Your task to perform on an android device: Go to Yahoo.com Image 0: 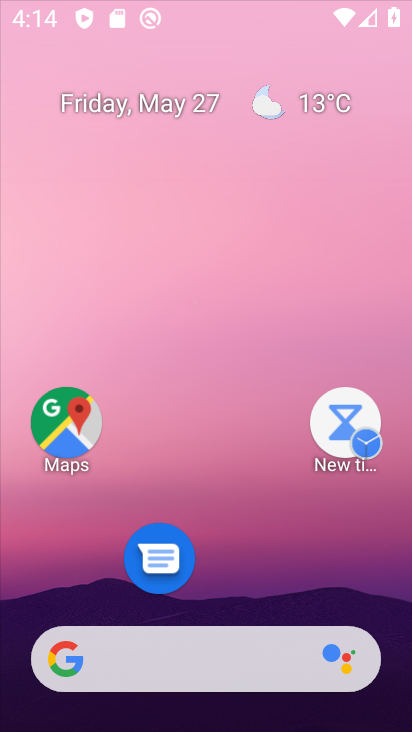
Step 0: click (165, 194)
Your task to perform on an android device: Go to Yahoo.com Image 1: 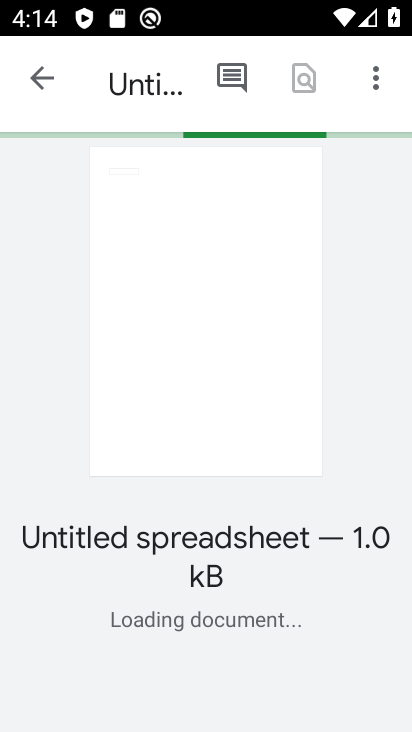
Step 1: press back button
Your task to perform on an android device: Go to Yahoo.com Image 2: 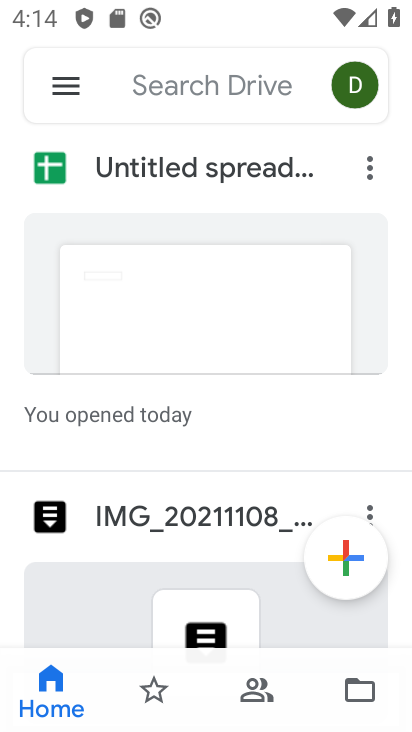
Step 2: drag from (406, 305) to (403, 247)
Your task to perform on an android device: Go to Yahoo.com Image 3: 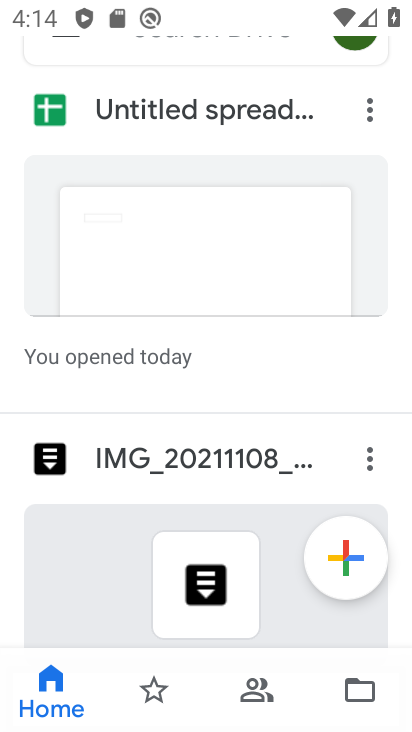
Step 3: press home button
Your task to perform on an android device: Go to Yahoo.com Image 4: 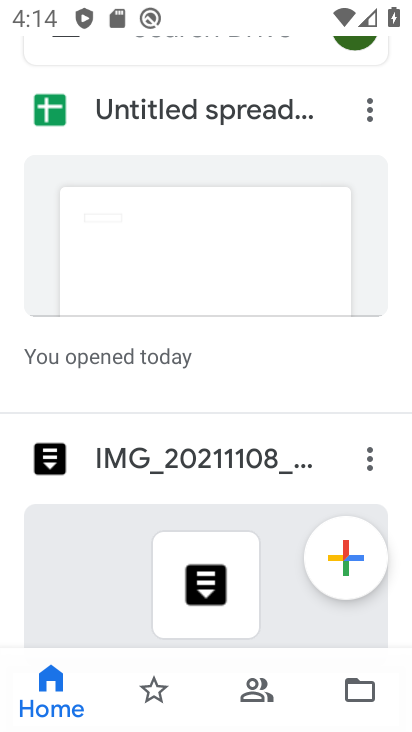
Step 4: press home button
Your task to perform on an android device: Go to Yahoo.com Image 5: 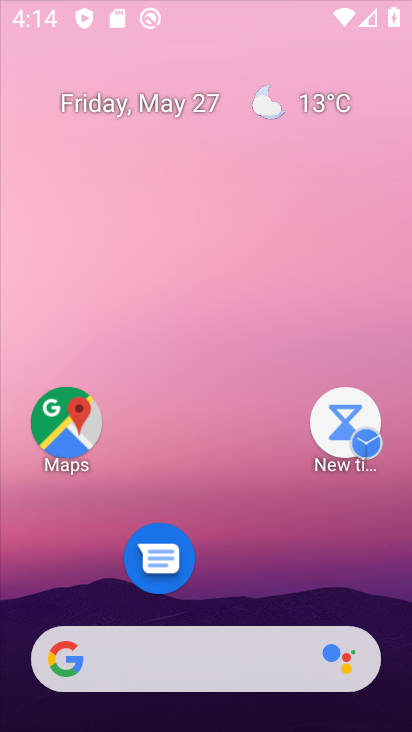
Step 5: press home button
Your task to perform on an android device: Go to Yahoo.com Image 6: 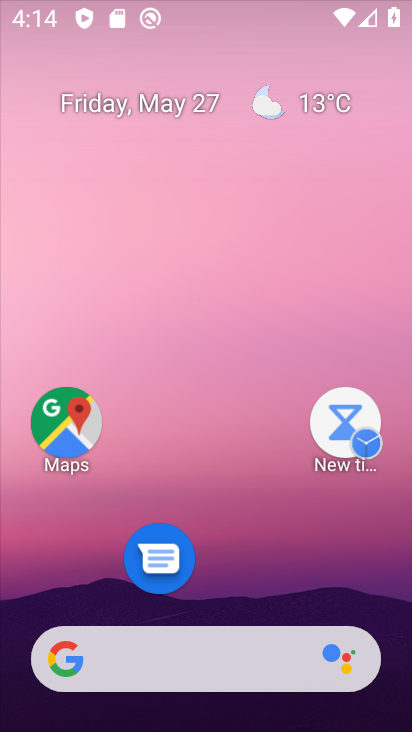
Step 6: press home button
Your task to perform on an android device: Go to Yahoo.com Image 7: 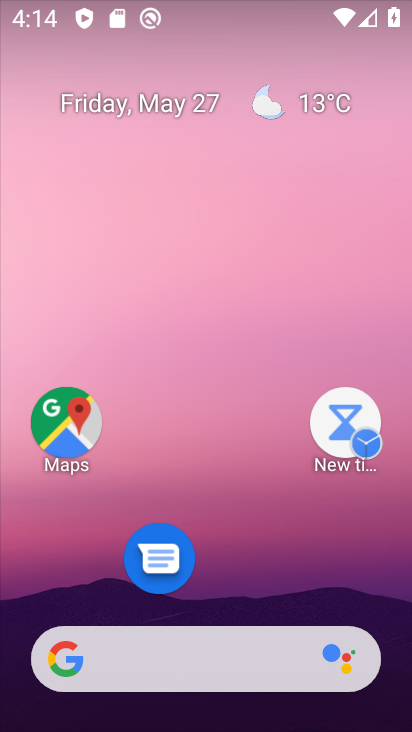
Step 7: drag from (273, 611) to (206, 163)
Your task to perform on an android device: Go to Yahoo.com Image 8: 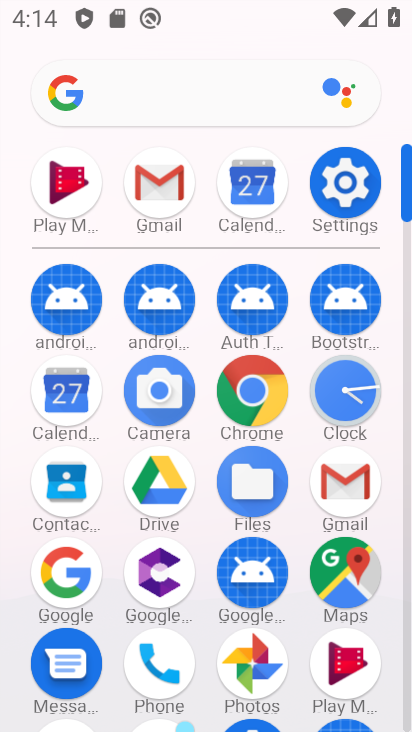
Step 8: click (250, 381)
Your task to perform on an android device: Go to Yahoo.com Image 9: 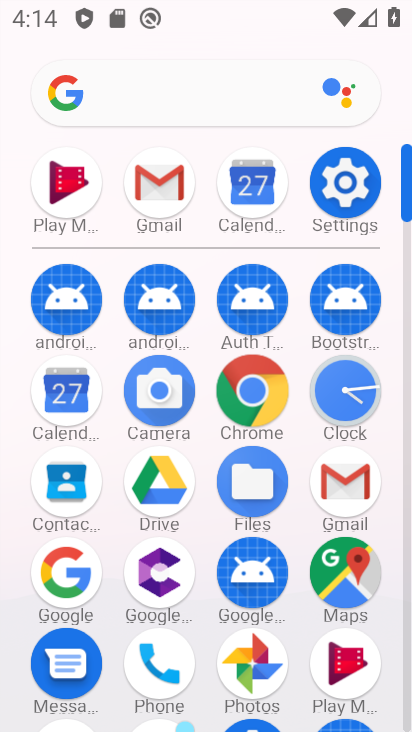
Step 9: click (252, 381)
Your task to perform on an android device: Go to Yahoo.com Image 10: 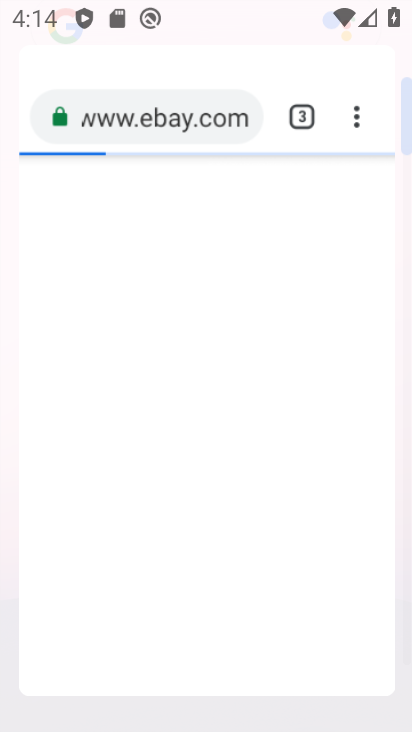
Step 10: click (259, 378)
Your task to perform on an android device: Go to Yahoo.com Image 11: 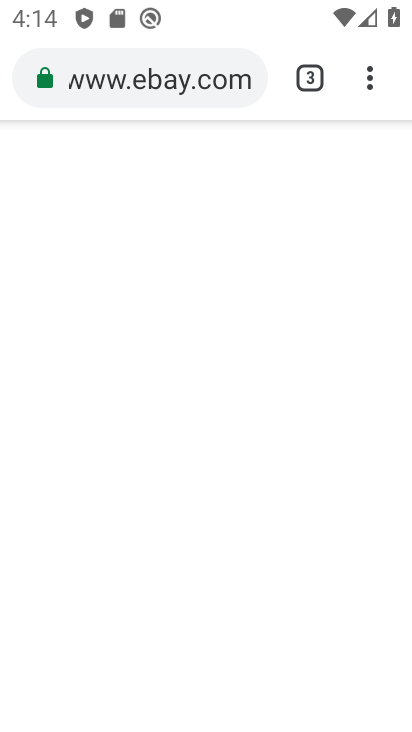
Step 11: click (260, 379)
Your task to perform on an android device: Go to Yahoo.com Image 12: 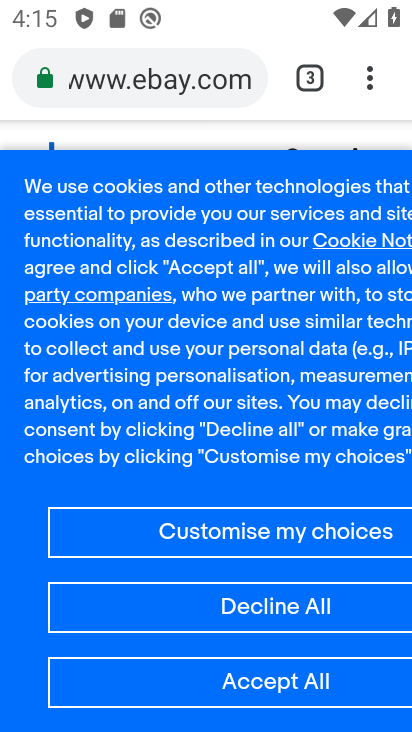
Step 12: click (368, 82)
Your task to perform on an android device: Go to Yahoo.com Image 13: 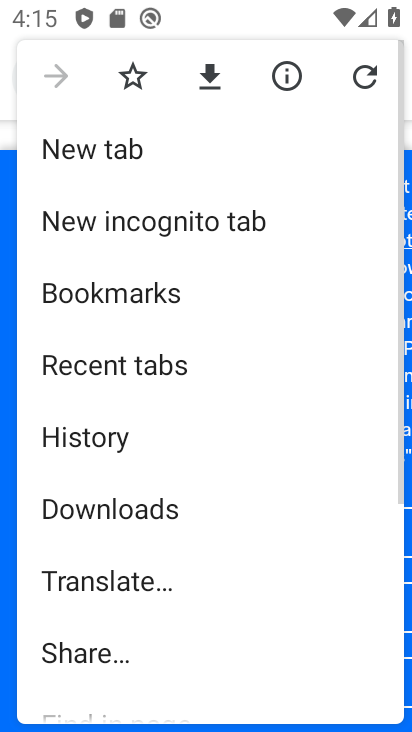
Step 13: click (98, 147)
Your task to perform on an android device: Go to Yahoo.com Image 14: 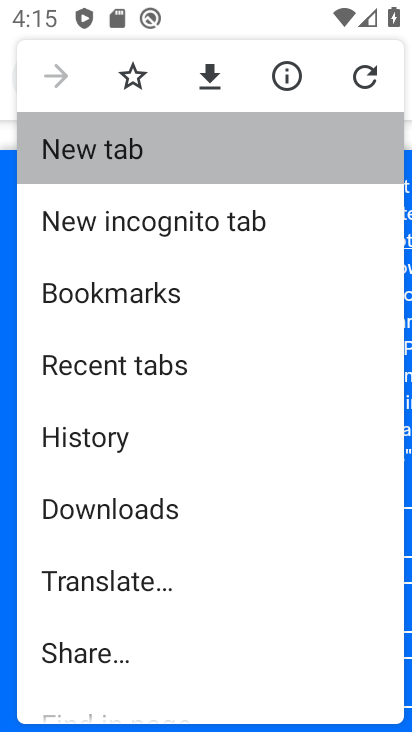
Step 14: click (97, 148)
Your task to perform on an android device: Go to Yahoo.com Image 15: 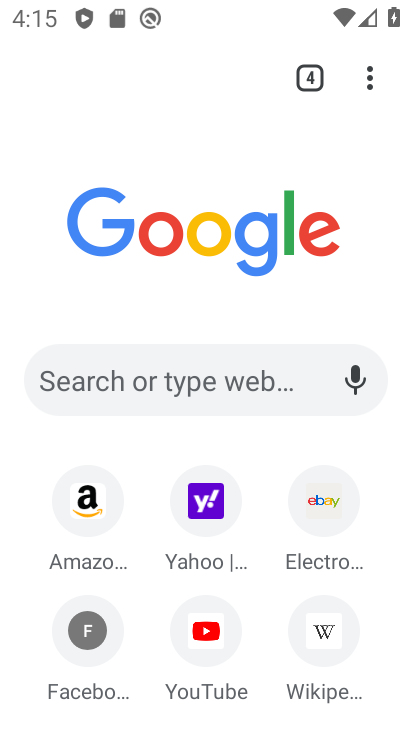
Step 15: click (203, 502)
Your task to perform on an android device: Go to Yahoo.com Image 16: 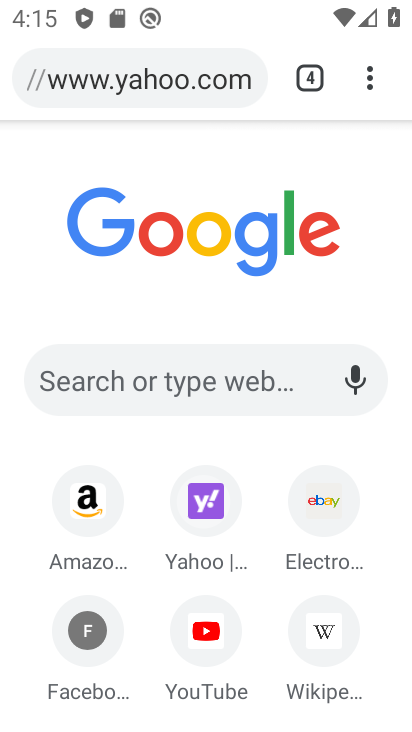
Step 16: click (209, 499)
Your task to perform on an android device: Go to Yahoo.com Image 17: 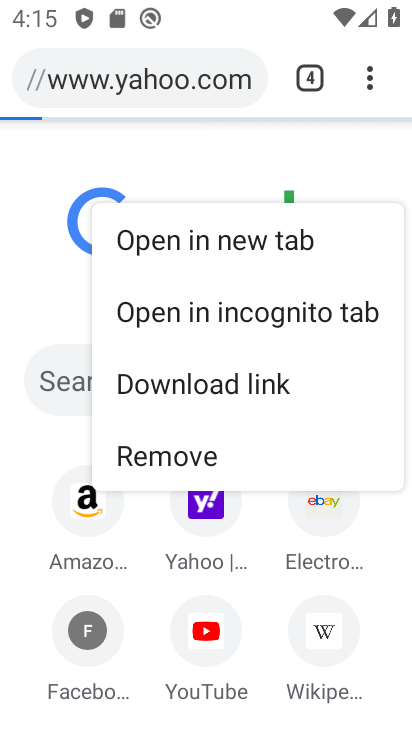
Step 17: click (214, 498)
Your task to perform on an android device: Go to Yahoo.com Image 18: 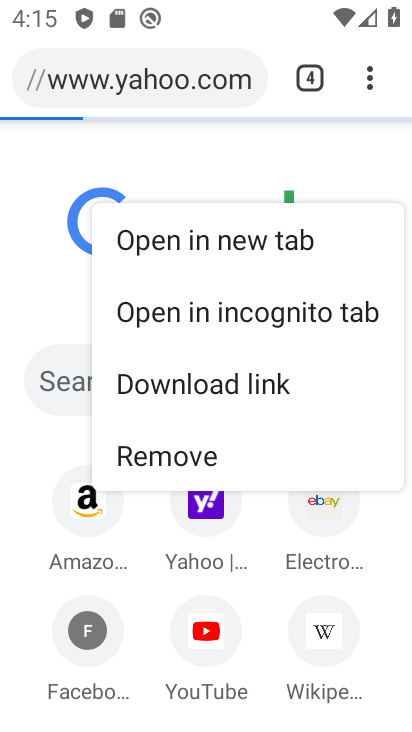
Step 18: click (214, 498)
Your task to perform on an android device: Go to Yahoo.com Image 19: 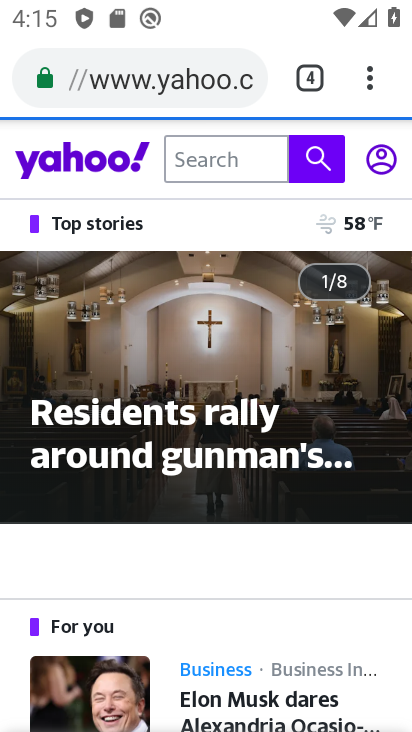
Step 19: task complete